Your task to perform on an android device: Go to location settings Image 0: 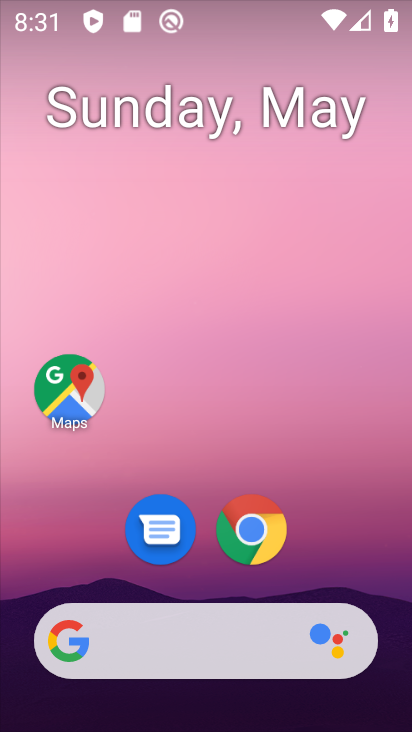
Step 0: drag from (362, 513) to (406, 128)
Your task to perform on an android device: Go to location settings Image 1: 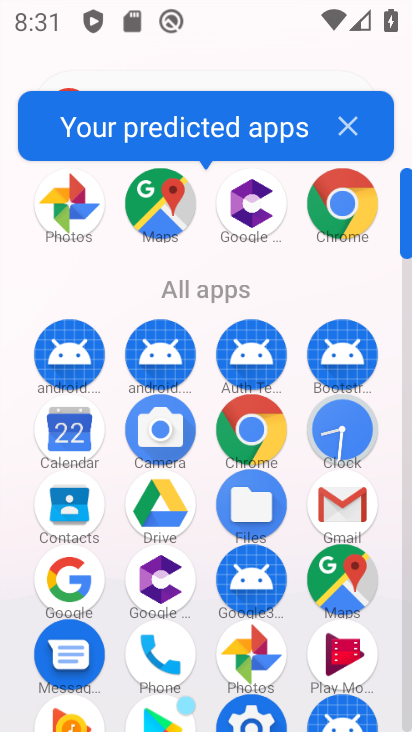
Step 1: click (247, 714)
Your task to perform on an android device: Go to location settings Image 2: 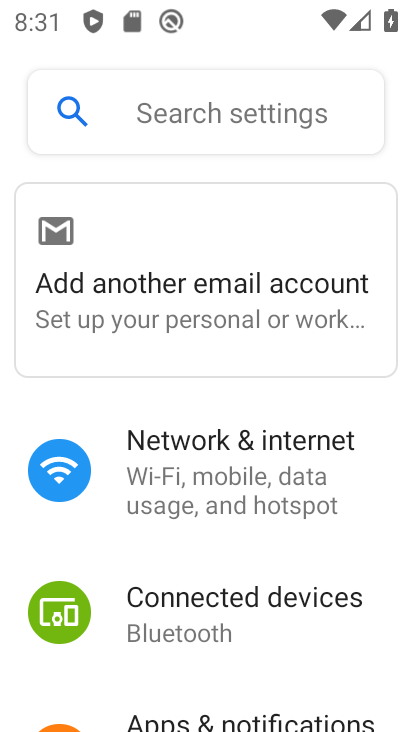
Step 2: drag from (243, 664) to (326, 10)
Your task to perform on an android device: Go to location settings Image 3: 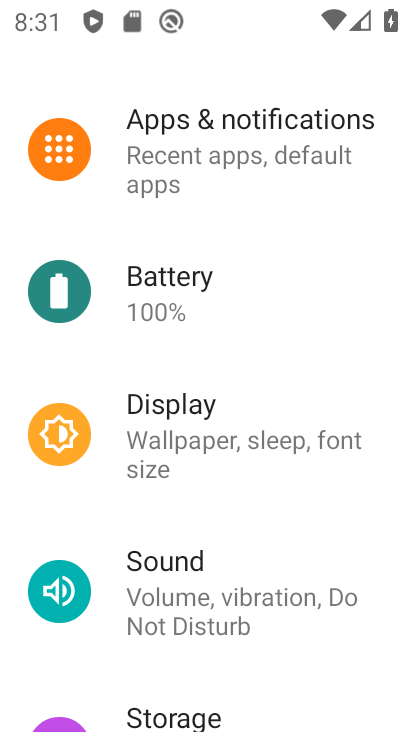
Step 3: drag from (194, 621) to (264, 34)
Your task to perform on an android device: Go to location settings Image 4: 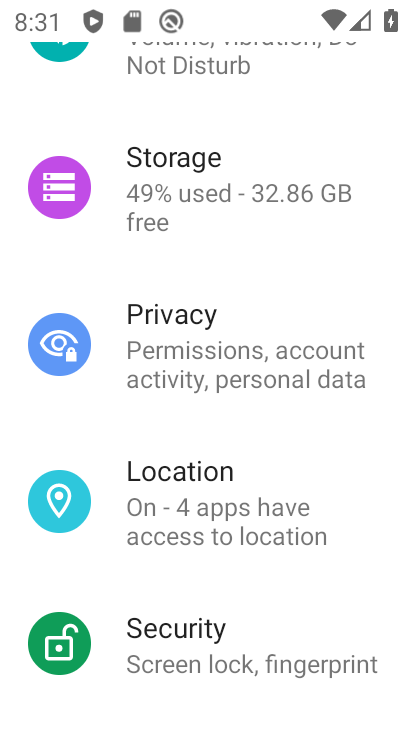
Step 4: click (168, 471)
Your task to perform on an android device: Go to location settings Image 5: 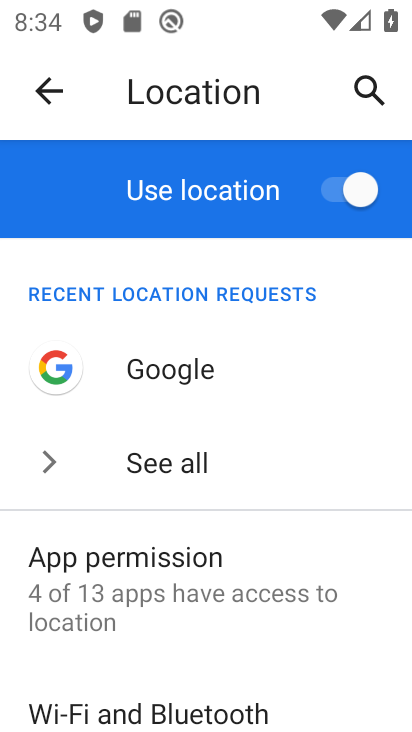
Step 5: task complete